Your task to perform on an android device: Check the weather Image 0: 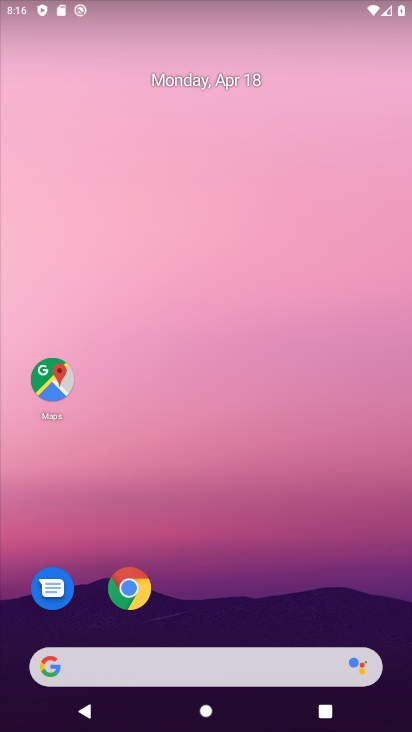
Step 0: click (131, 585)
Your task to perform on an android device: Check the weather Image 1: 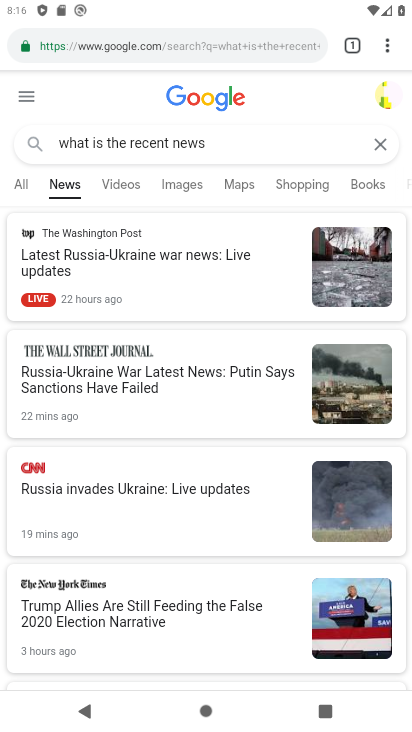
Step 1: click (383, 141)
Your task to perform on an android device: Check the weather Image 2: 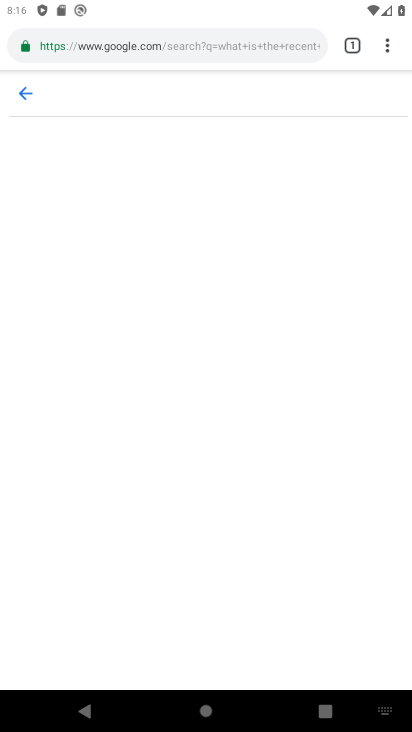
Step 2: click (107, 93)
Your task to perform on an android device: Check the weather Image 3: 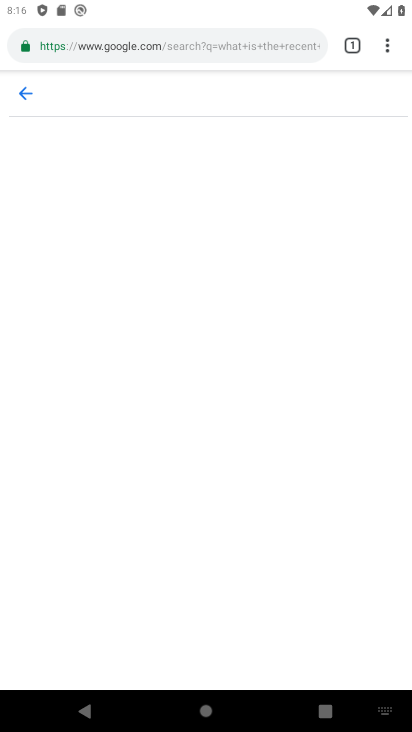
Step 3: type "weather"
Your task to perform on an android device: Check the weather Image 4: 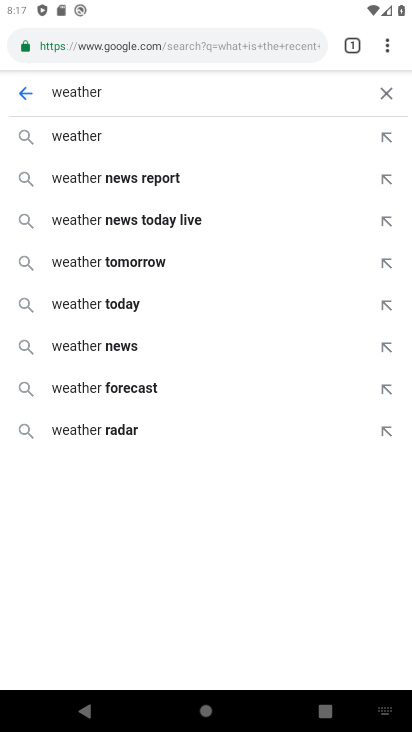
Step 4: click (85, 134)
Your task to perform on an android device: Check the weather Image 5: 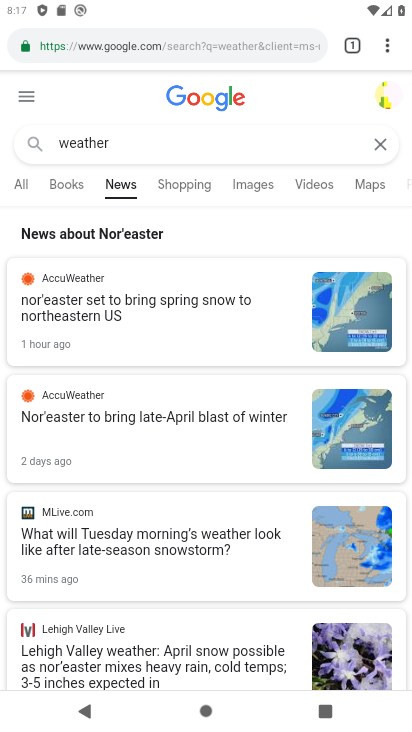
Step 5: click (19, 182)
Your task to perform on an android device: Check the weather Image 6: 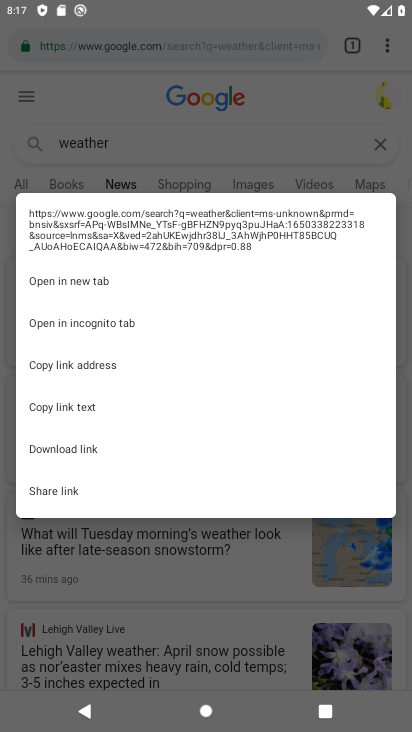
Step 6: click (58, 176)
Your task to perform on an android device: Check the weather Image 7: 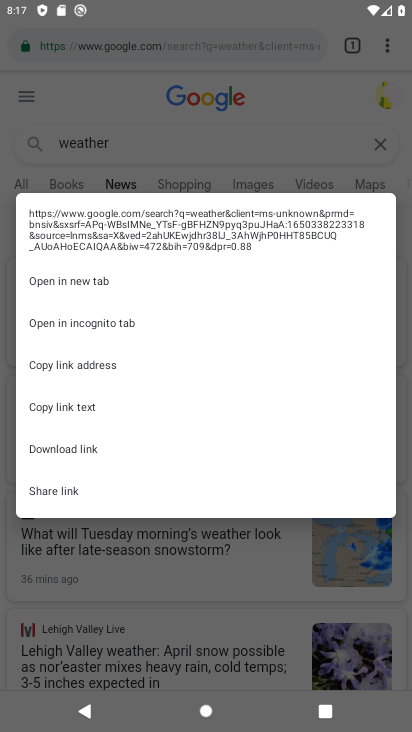
Step 7: click (30, 178)
Your task to perform on an android device: Check the weather Image 8: 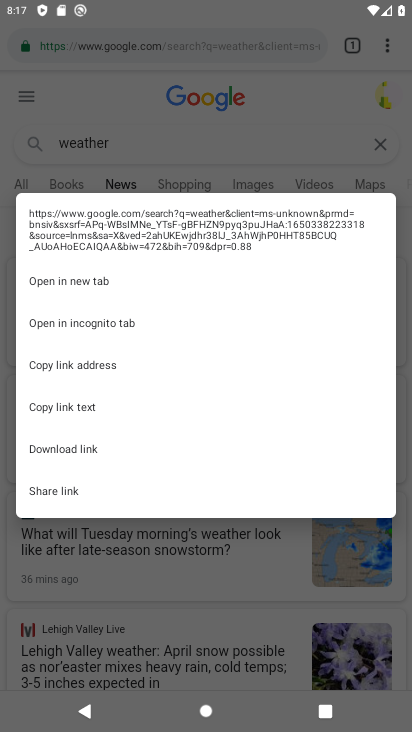
Step 8: click (25, 181)
Your task to perform on an android device: Check the weather Image 9: 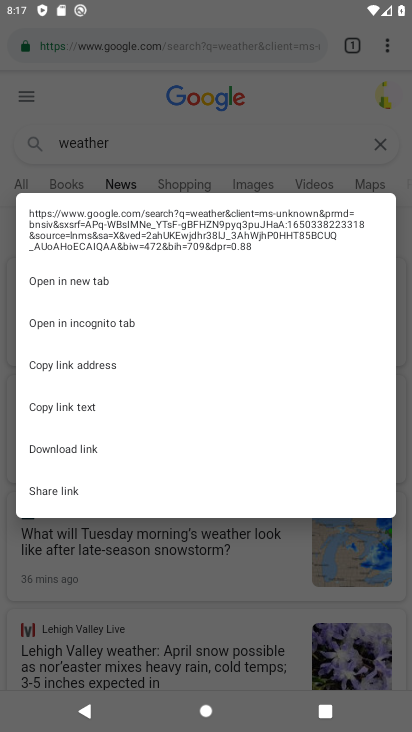
Step 9: click (23, 179)
Your task to perform on an android device: Check the weather Image 10: 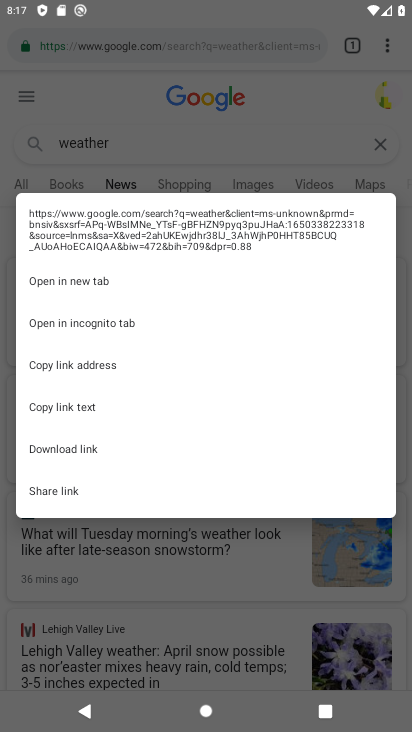
Step 10: click (12, 172)
Your task to perform on an android device: Check the weather Image 11: 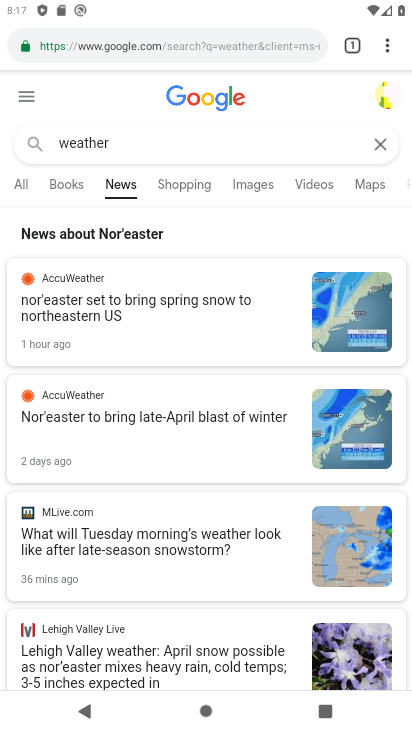
Step 11: click (105, 141)
Your task to perform on an android device: Check the weather Image 12: 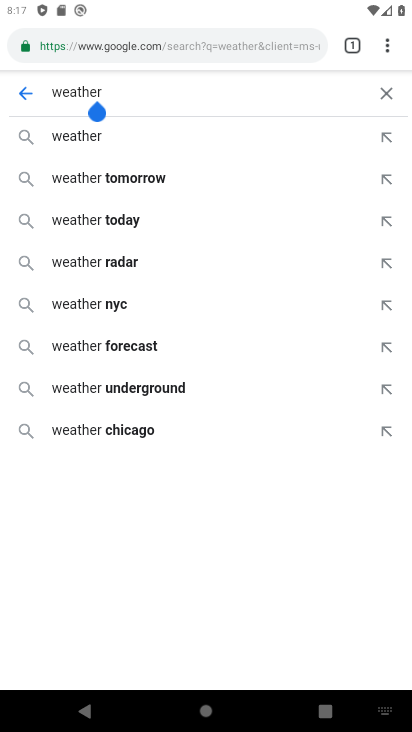
Step 12: click (195, 92)
Your task to perform on an android device: Check the weather Image 13: 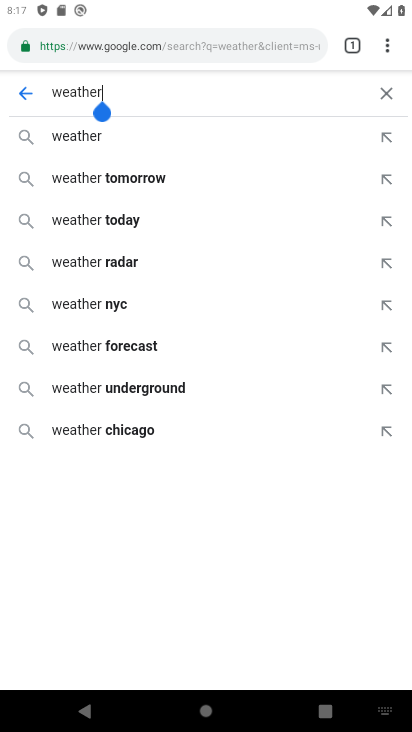
Step 13: click (169, 93)
Your task to perform on an android device: Check the weather Image 14: 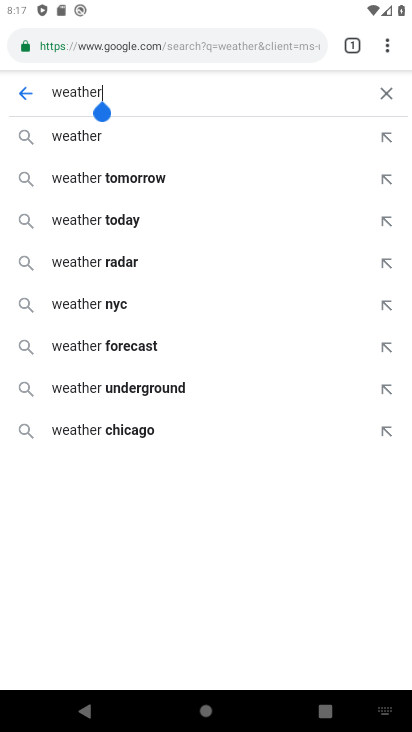
Step 14: click (74, 136)
Your task to perform on an android device: Check the weather Image 15: 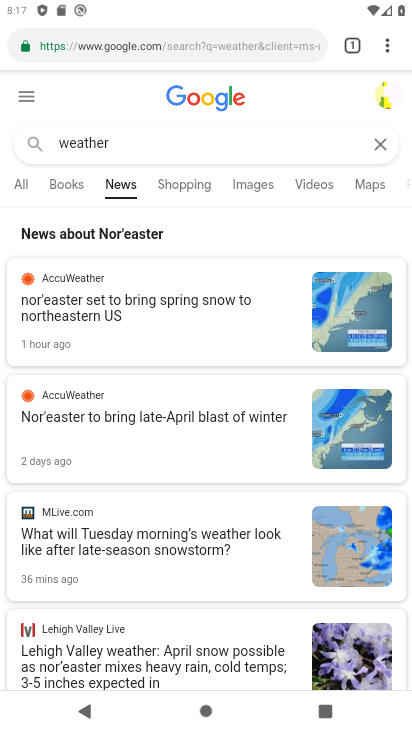
Step 15: click (21, 185)
Your task to perform on an android device: Check the weather Image 16: 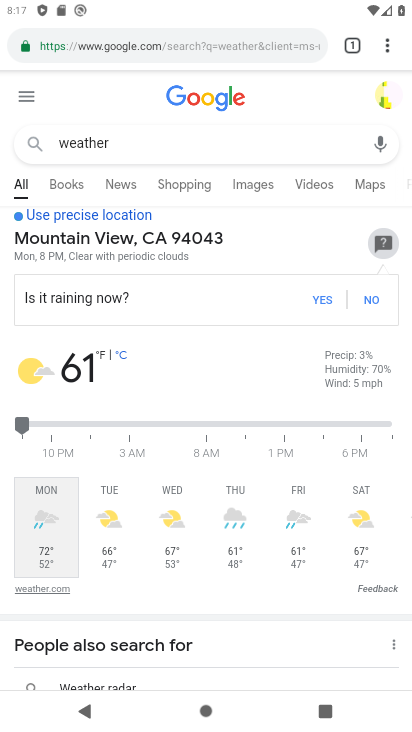
Step 16: click (326, 296)
Your task to perform on an android device: Check the weather Image 17: 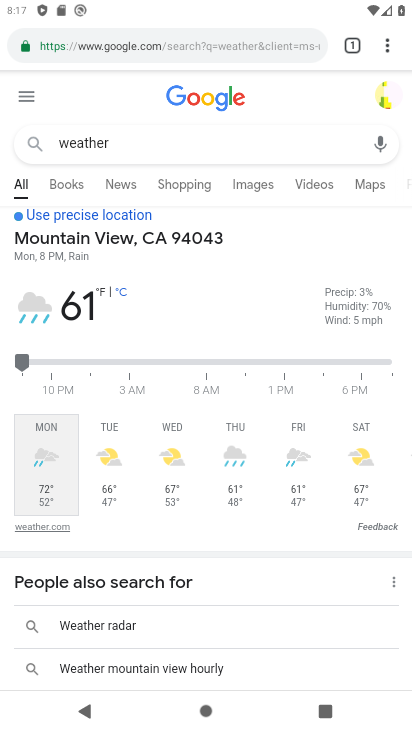
Step 17: task complete